Your task to perform on an android device: turn on priority inbox in the gmail app Image 0: 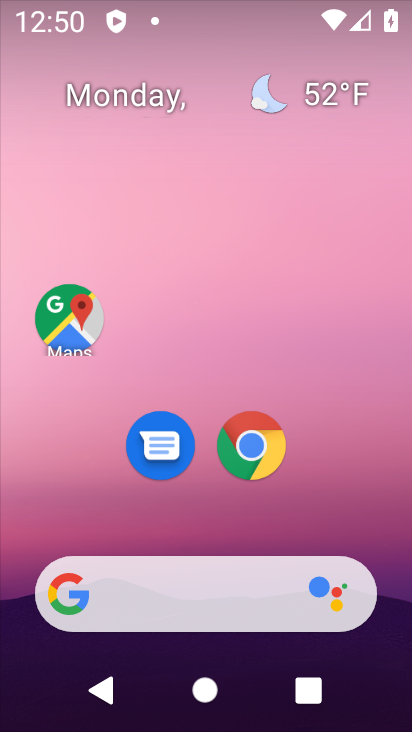
Step 0: drag from (375, 553) to (351, 152)
Your task to perform on an android device: turn on priority inbox in the gmail app Image 1: 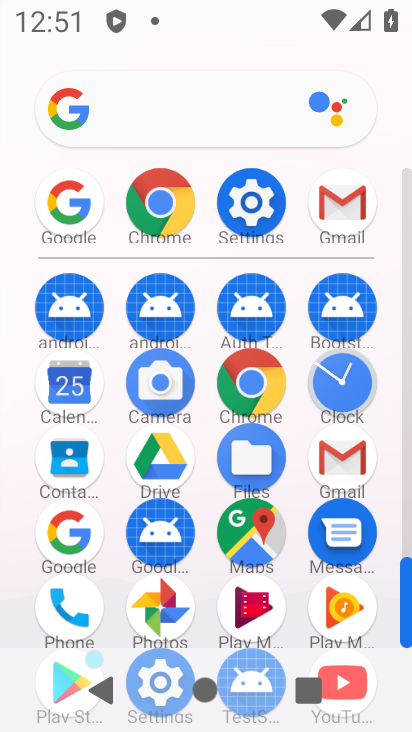
Step 1: click (343, 471)
Your task to perform on an android device: turn on priority inbox in the gmail app Image 2: 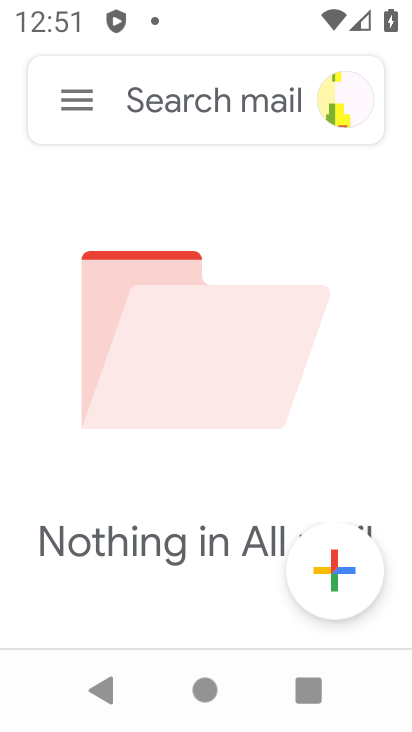
Step 2: click (86, 97)
Your task to perform on an android device: turn on priority inbox in the gmail app Image 3: 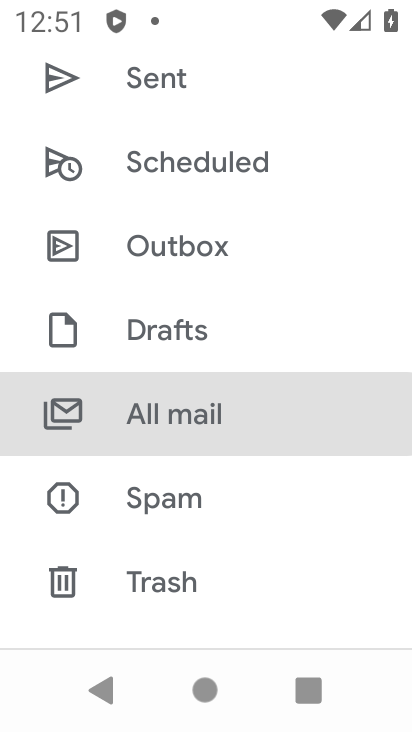
Step 3: drag from (285, 606) to (321, 182)
Your task to perform on an android device: turn on priority inbox in the gmail app Image 4: 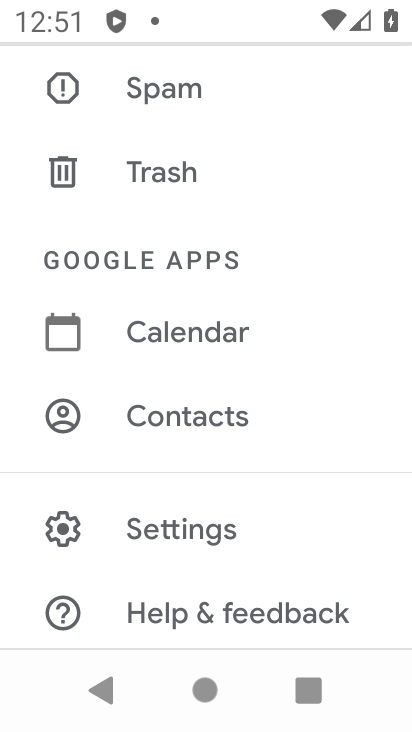
Step 4: click (191, 529)
Your task to perform on an android device: turn on priority inbox in the gmail app Image 5: 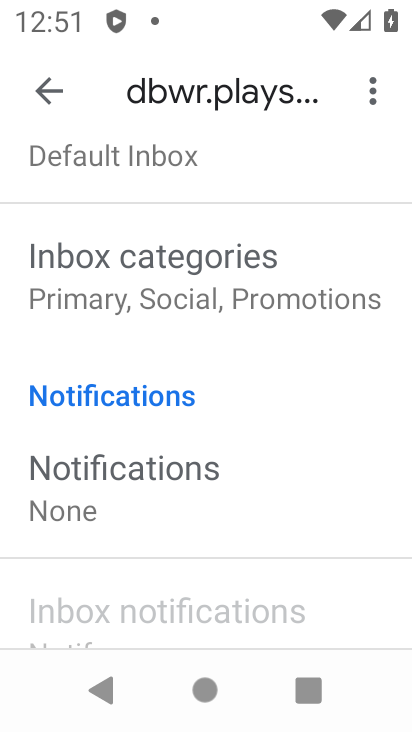
Step 5: drag from (238, 609) to (275, 307)
Your task to perform on an android device: turn on priority inbox in the gmail app Image 6: 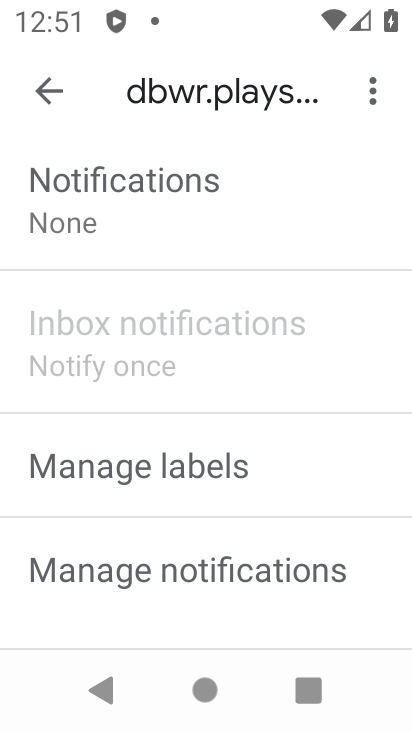
Step 6: drag from (260, 223) to (329, 520)
Your task to perform on an android device: turn on priority inbox in the gmail app Image 7: 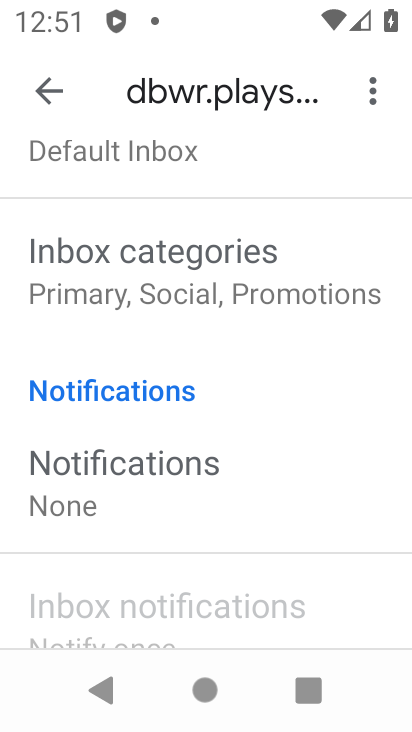
Step 7: drag from (253, 211) to (318, 501)
Your task to perform on an android device: turn on priority inbox in the gmail app Image 8: 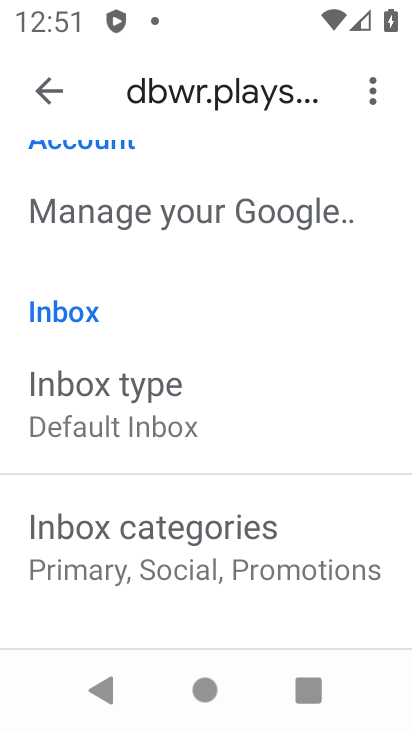
Step 8: click (92, 391)
Your task to perform on an android device: turn on priority inbox in the gmail app Image 9: 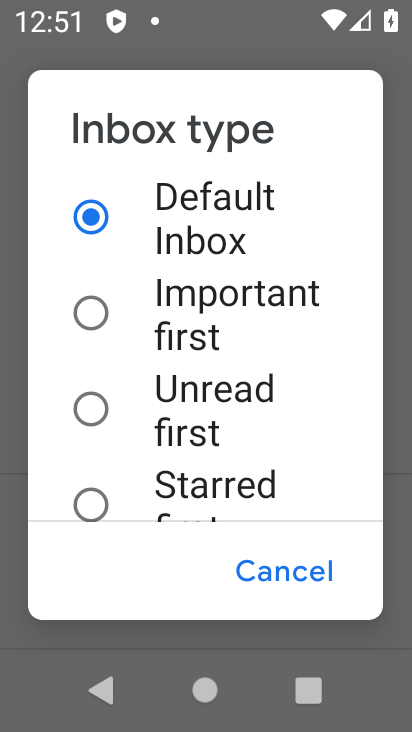
Step 9: drag from (119, 477) to (148, 195)
Your task to perform on an android device: turn on priority inbox in the gmail app Image 10: 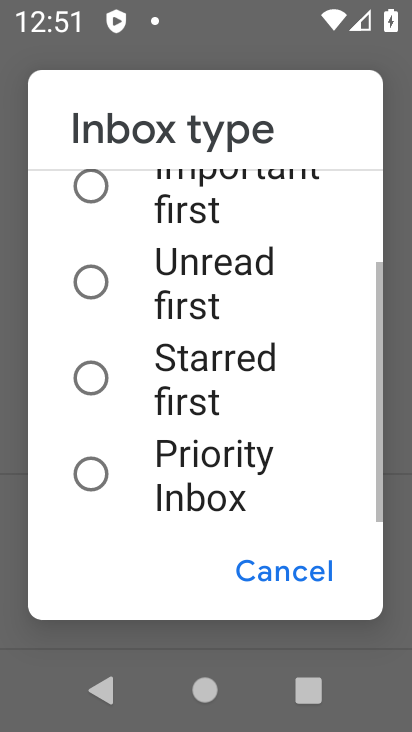
Step 10: click (95, 486)
Your task to perform on an android device: turn on priority inbox in the gmail app Image 11: 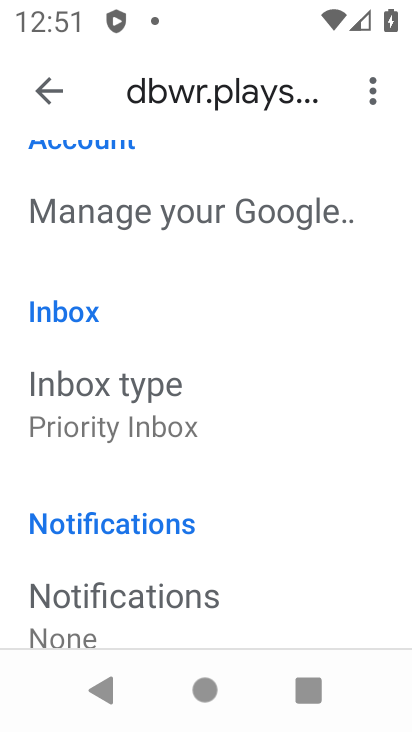
Step 11: task complete